Your task to perform on an android device: delete a single message in the gmail app Image 0: 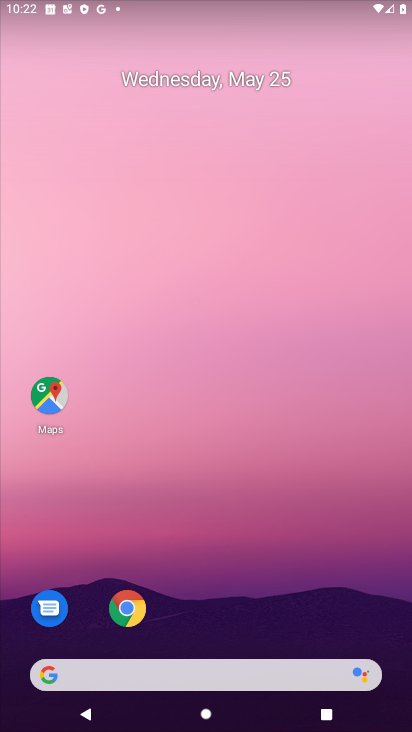
Step 0: drag from (254, 631) to (260, 10)
Your task to perform on an android device: delete a single message in the gmail app Image 1: 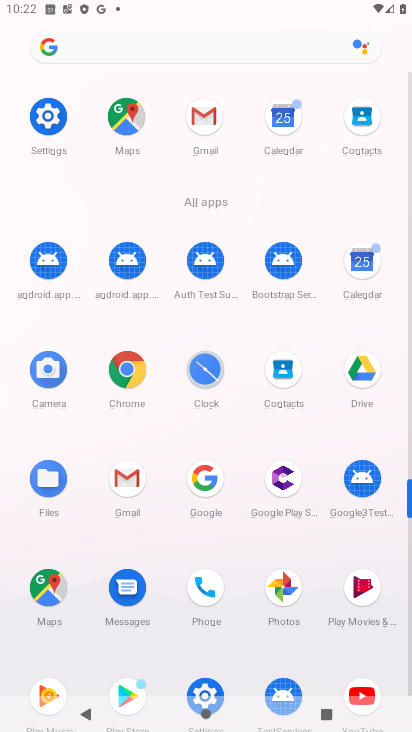
Step 1: click (187, 119)
Your task to perform on an android device: delete a single message in the gmail app Image 2: 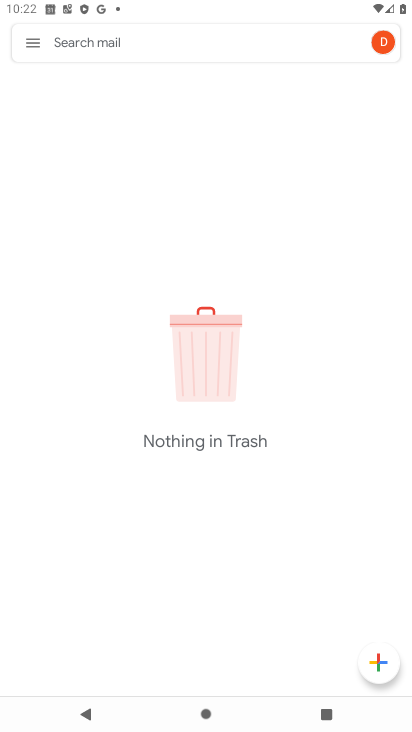
Step 2: click (40, 44)
Your task to perform on an android device: delete a single message in the gmail app Image 3: 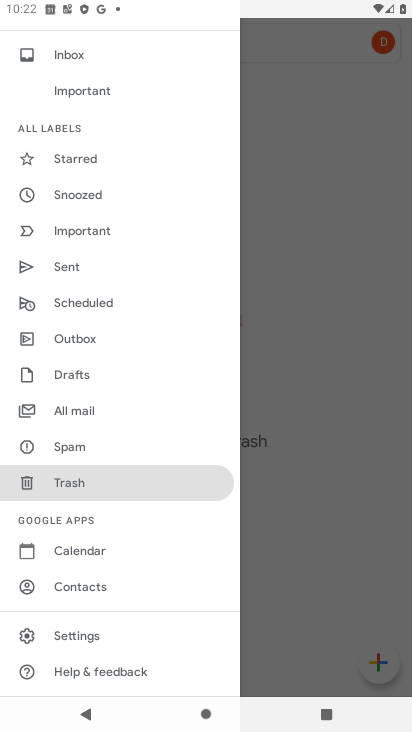
Step 3: click (69, 414)
Your task to perform on an android device: delete a single message in the gmail app Image 4: 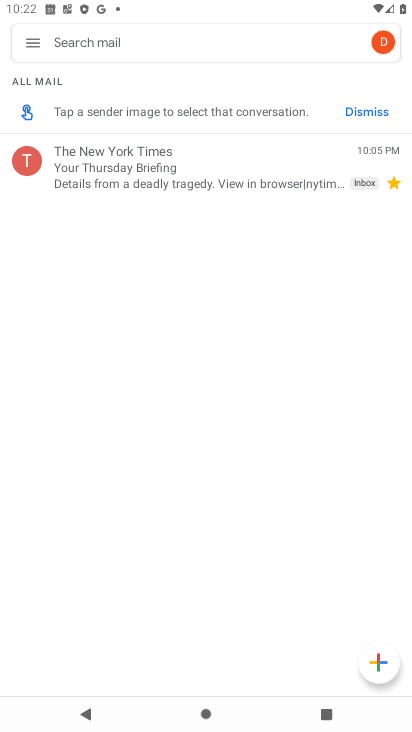
Step 4: click (166, 165)
Your task to perform on an android device: delete a single message in the gmail app Image 5: 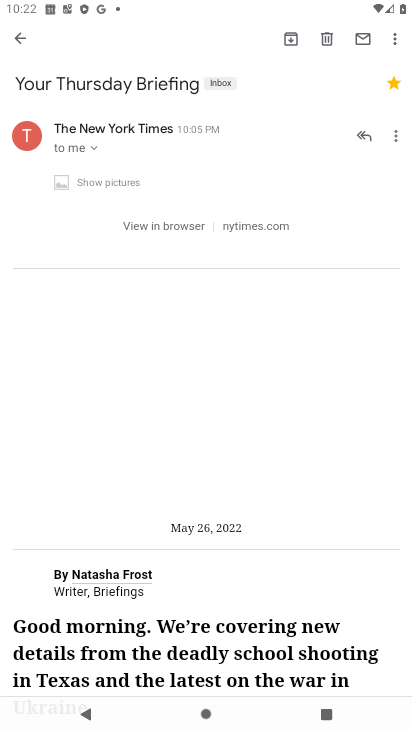
Step 5: click (325, 39)
Your task to perform on an android device: delete a single message in the gmail app Image 6: 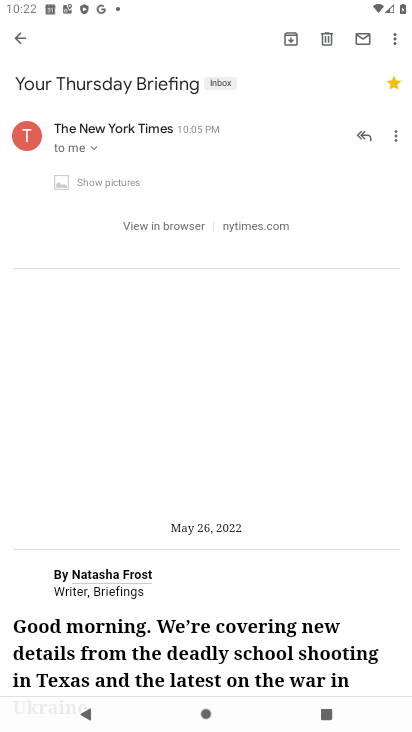
Step 6: click (327, 38)
Your task to perform on an android device: delete a single message in the gmail app Image 7: 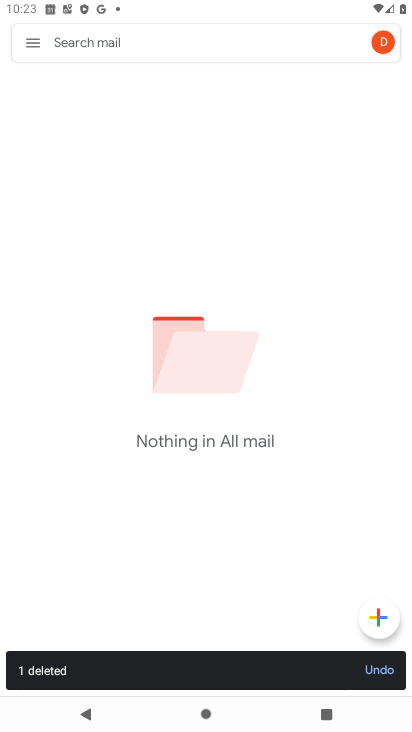
Step 7: task complete